Your task to perform on an android device: Open network settings Image 0: 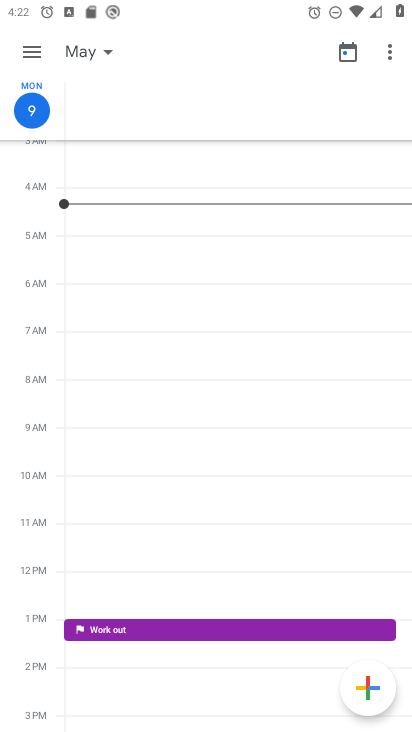
Step 0: press home button
Your task to perform on an android device: Open network settings Image 1: 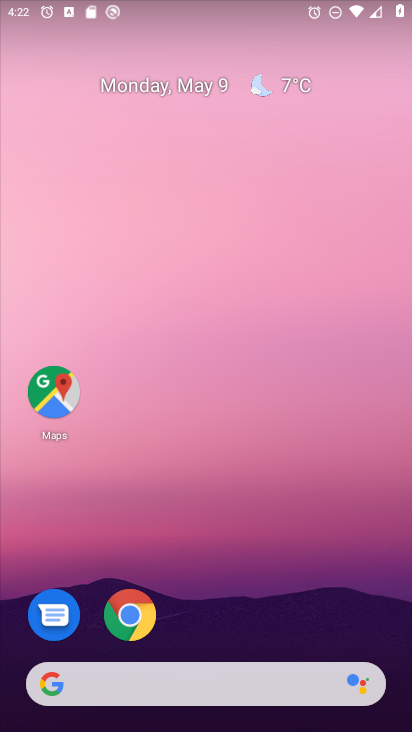
Step 1: drag from (374, 640) to (277, 125)
Your task to perform on an android device: Open network settings Image 2: 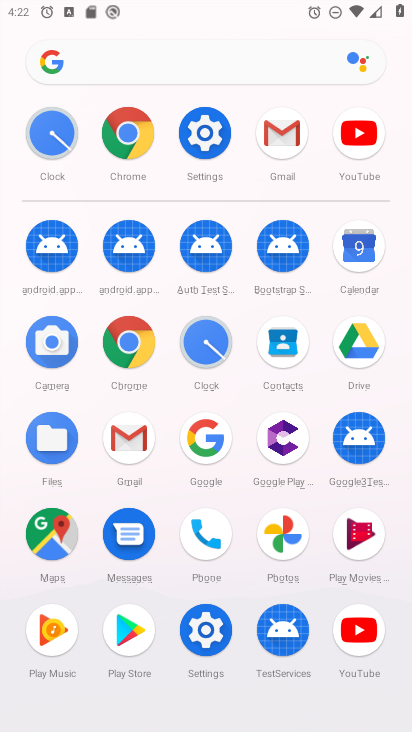
Step 2: click (205, 632)
Your task to perform on an android device: Open network settings Image 3: 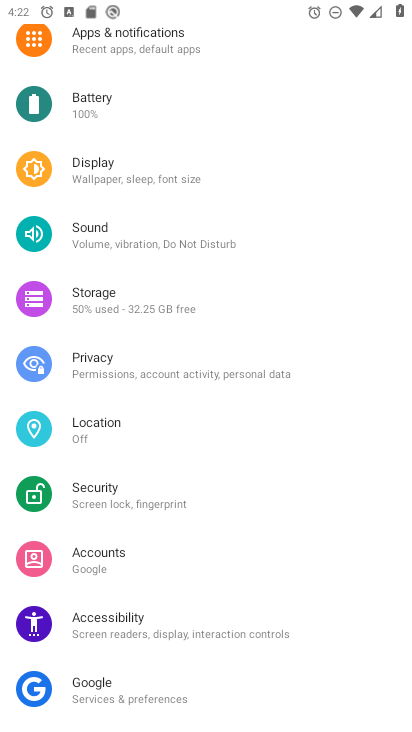
Step 3: drag from (337, 113) to (300, 396)
Your task to perform on an android device: Open network settings Image 4: 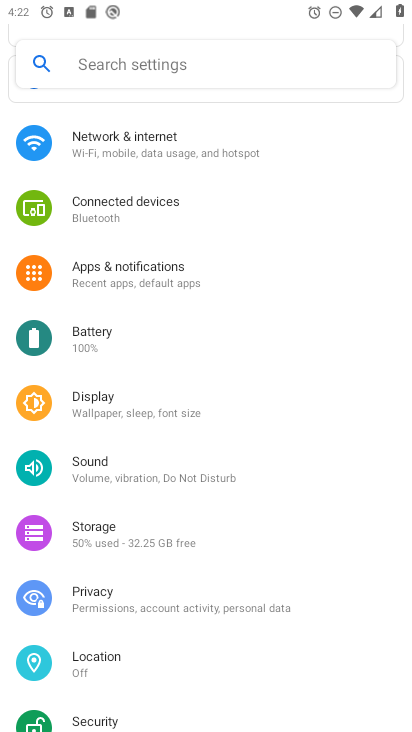
Step 4: click (103, 146)
Your task to perform on an android device: Open network settings Image 5: 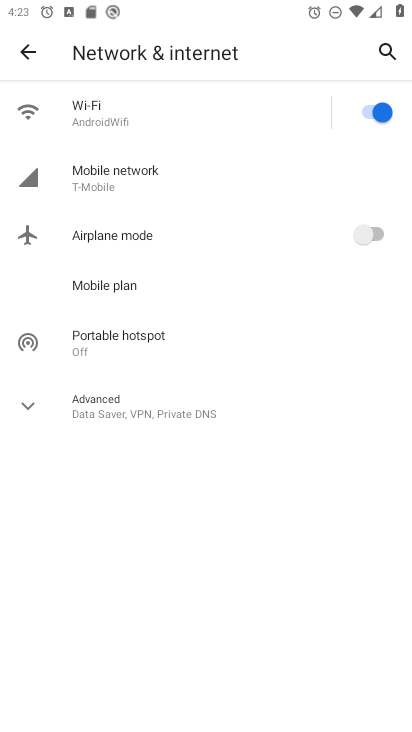
Step 5: click (104, 167)
Your task to perform on an android device: Open network settings Image 6: 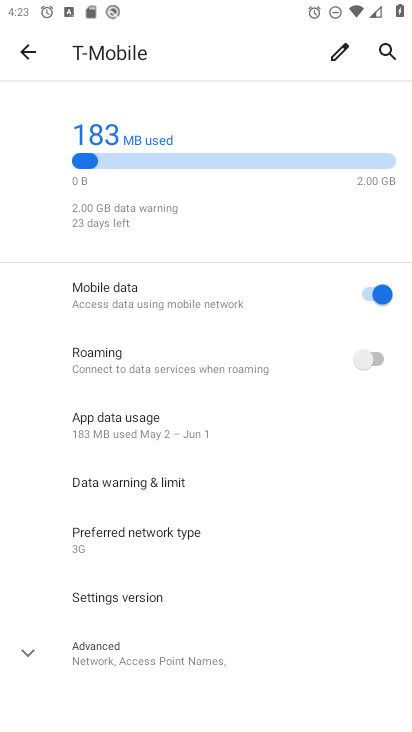
Step 6: task complete